Your task to perform on an android device: set an alarm Image 0: 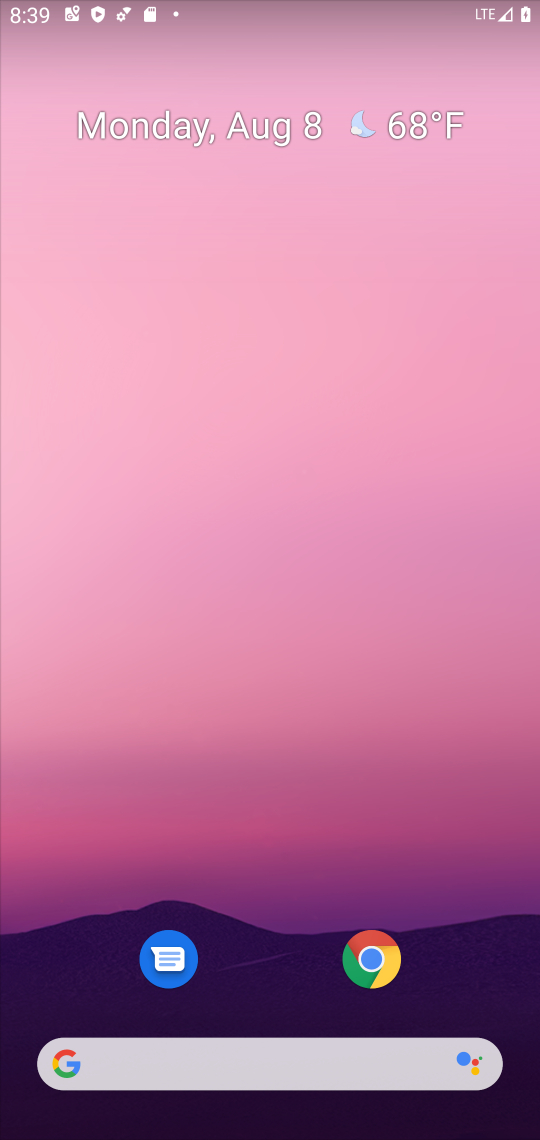
Step 0: drag from (516, 955) to (325, 1)
Your task to perform on an android device: set an alarm Image 1: 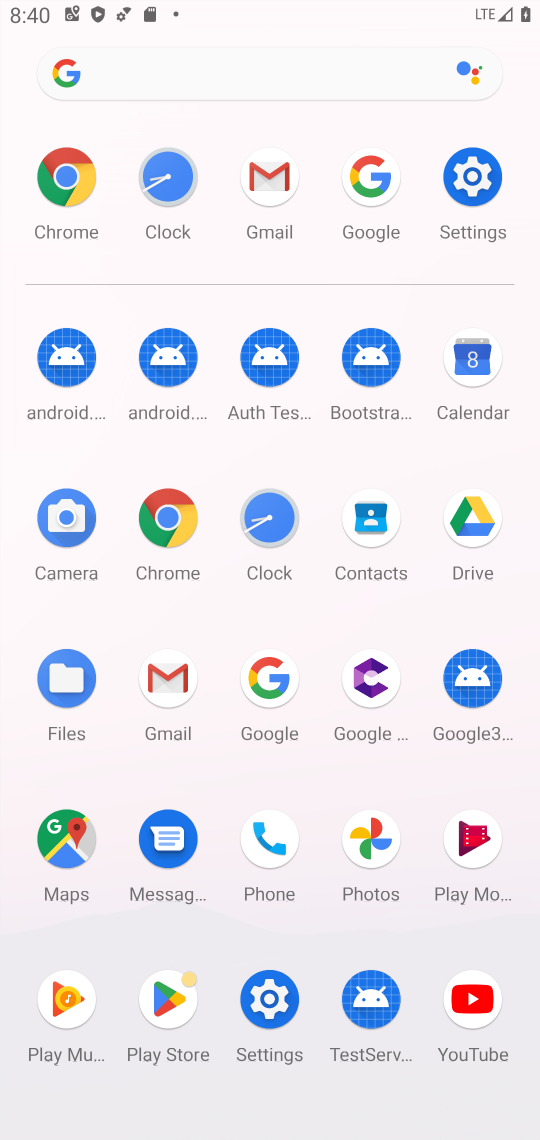
Step 1: click (279, 527)
Your task to perform on an android device: set an alarm Image 2: 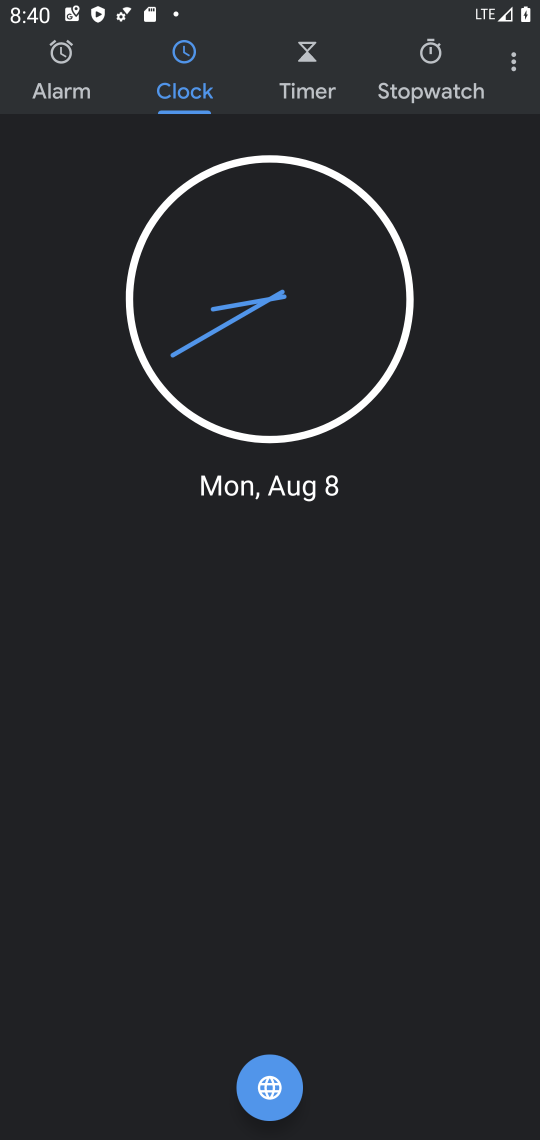
Step 2: click (47, 62)
Your task to perform on an android device: set an alarm Image 3: 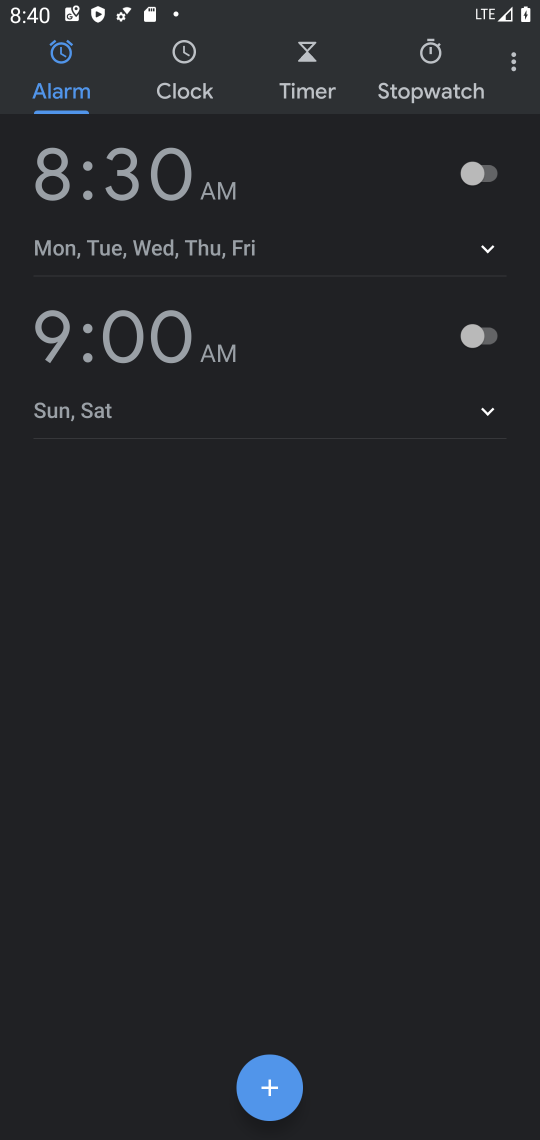
Step 3: click (504, 166)
Your task to perform on an android device: set an alarm Image 4: 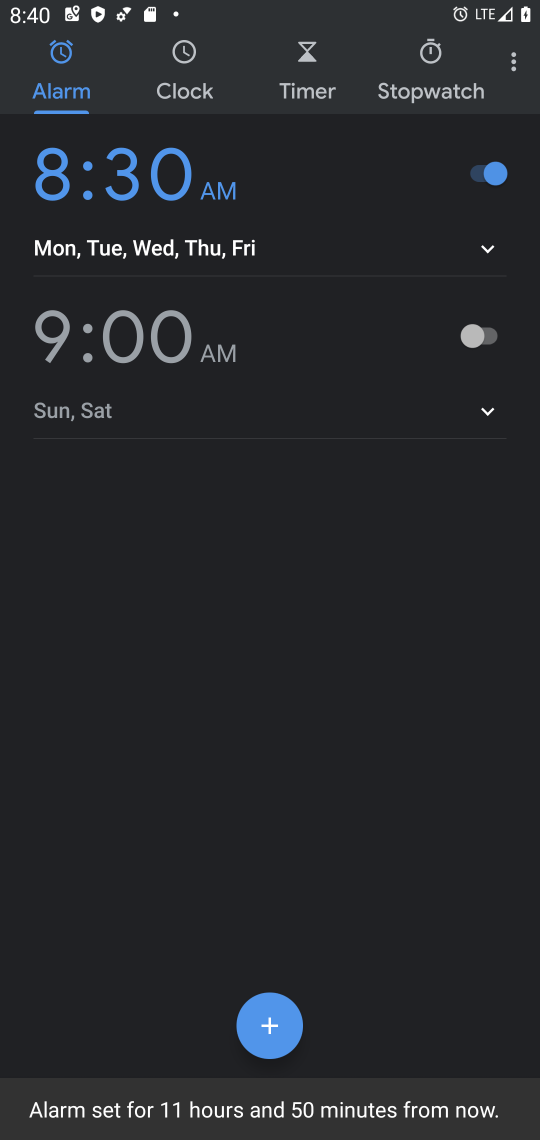
Step 4: task complete